Your task to perform on an android device: star an email in the gmail app Image 0: 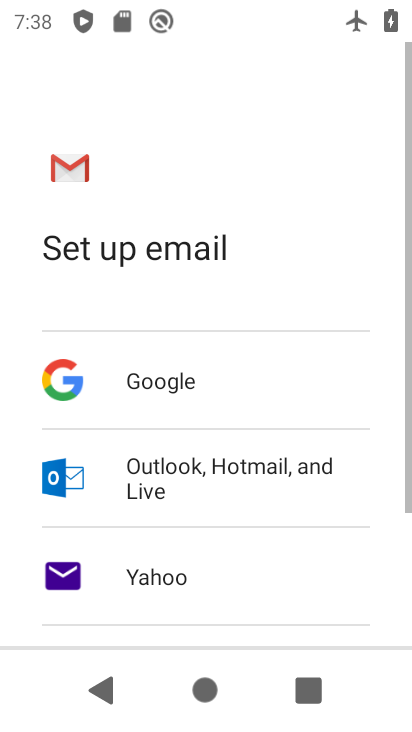
Step 0: press home button
Your task to perform on an android device: star an email in the gmail app Image 1: 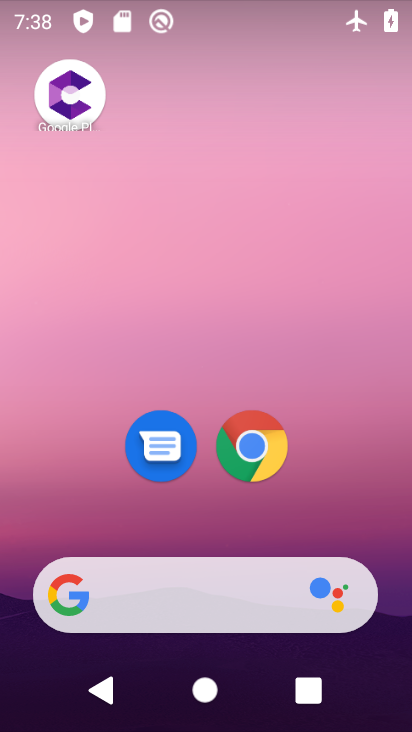
Step 1: drag from (366, 553) to (308, 0)
Your task to perform on an android device: star an email in the gmail app Image 2: 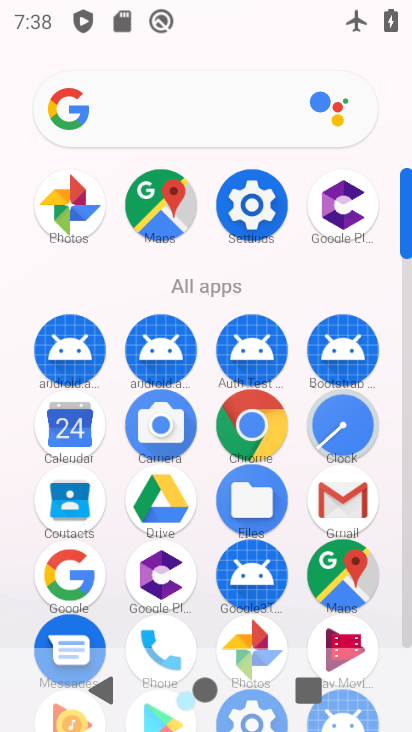
Step 2: click (341, 505)
Your task to perform on an android device: star an email in the gmail app Image 3: 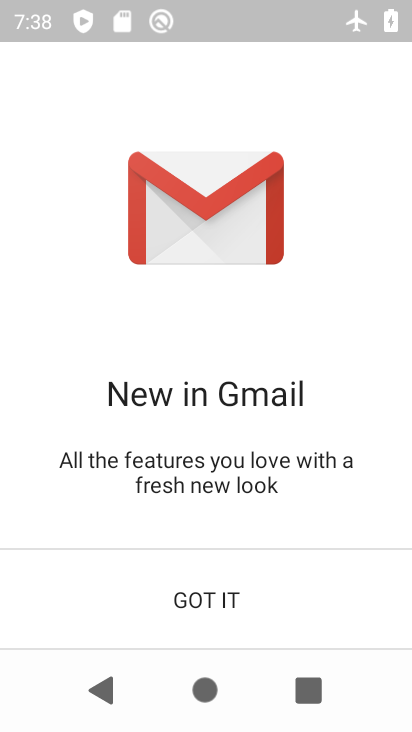
Step 3: click (200, 605)
Your task to perform on an android device: star an email in the gmail app Image 4: 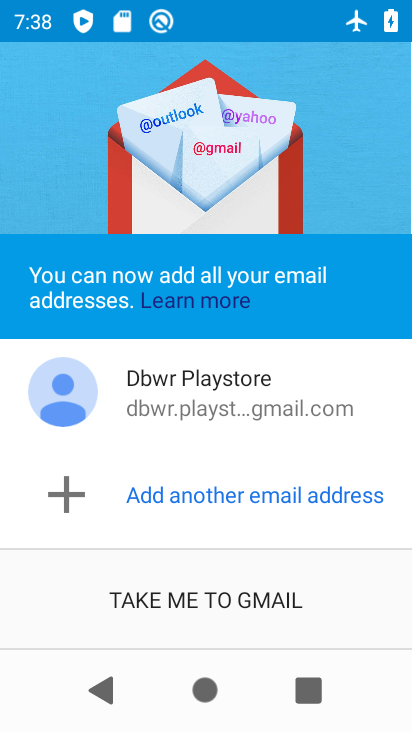
Step 4: click (200, 605)
Your task to perform on an android device: star an email in the gmail app Image 5: 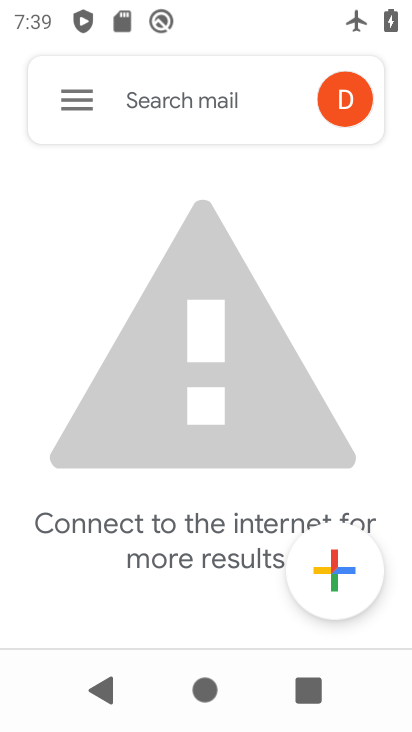
Step 5: click (82, 107)
Your task to perform on an android device: star an email in the gmail app Image 6: 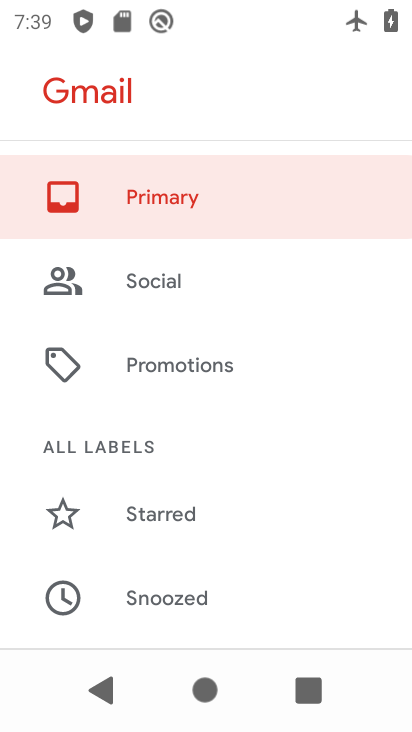
Step 6: drag from (248, 530) to (192, 169)
Your task to perform on an android device: star an email in the gmail app Image 7: 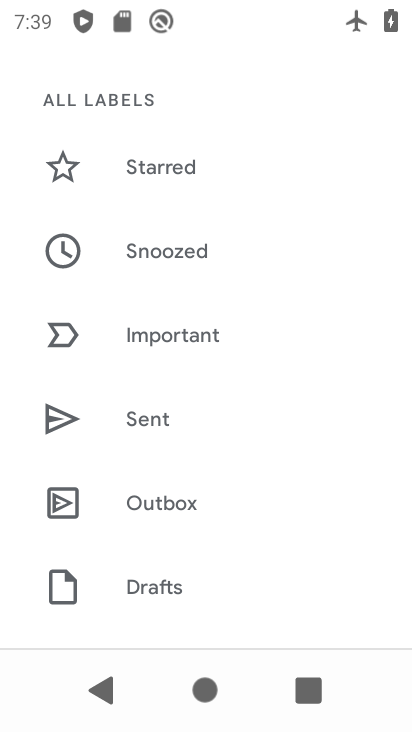
Step 7: drag from (232, 524) to (178, 165)
Your task to perform on an android device: star an email in the gmail app Image 8: 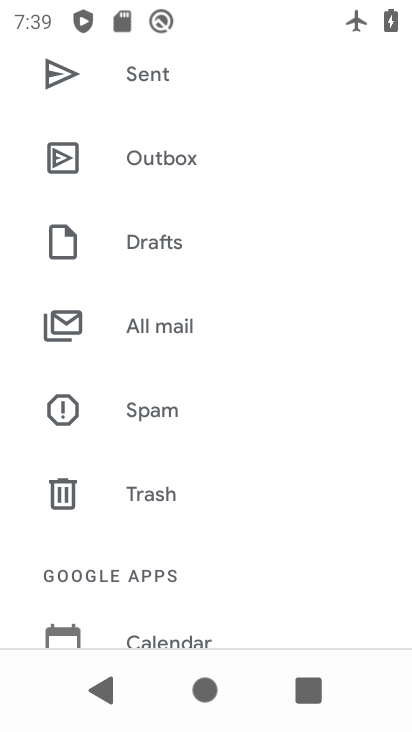
Step 8: click (127, 322)
Your task to perform on an android device: star an email in the gmail app Image 9: 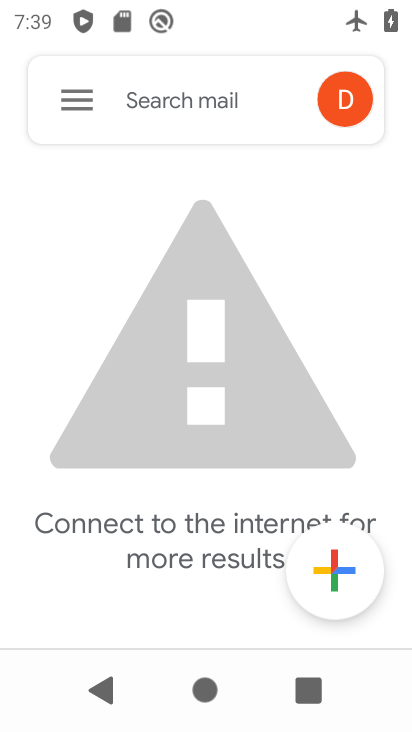
Step 9: task complete